Your task to perform on an android device: open wifi settings Image 0: 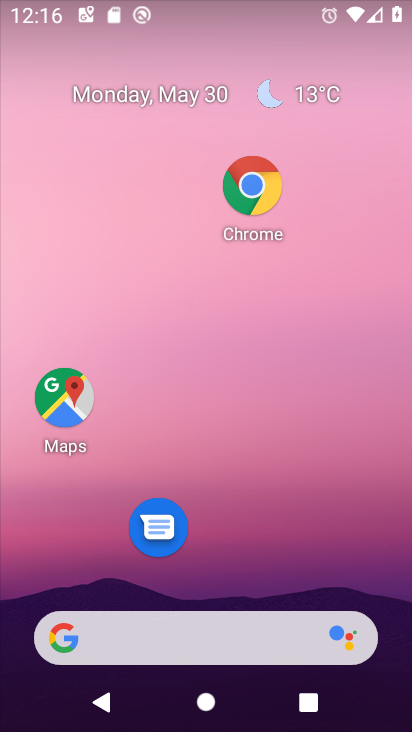
Step 0: drag from (201, 13) to (141, 610)
Your task to perform on an android device: open wifi settings Image 1: 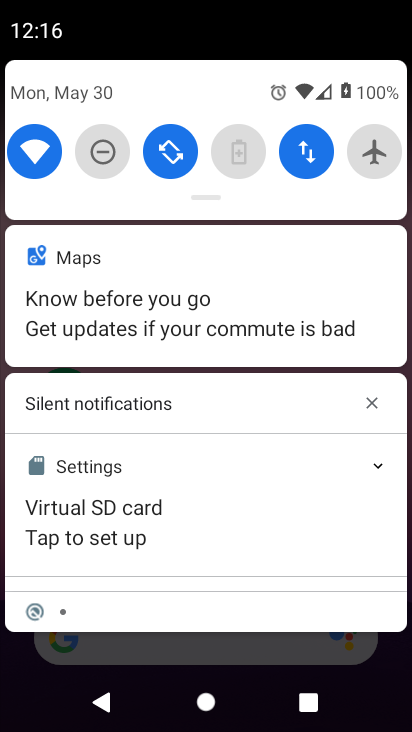
Step 1: click (37, 163)
Your task to perform on an android device: open wifi settings Image 2: 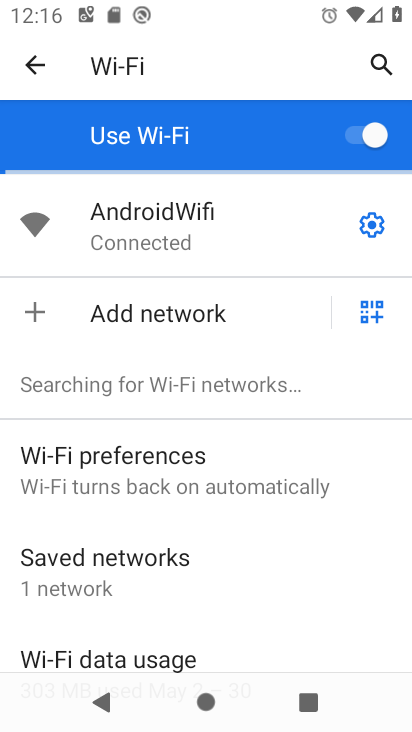
Step 2: task complete